Your task to perform on an android device: Do I have any events this weekend? Image 0: 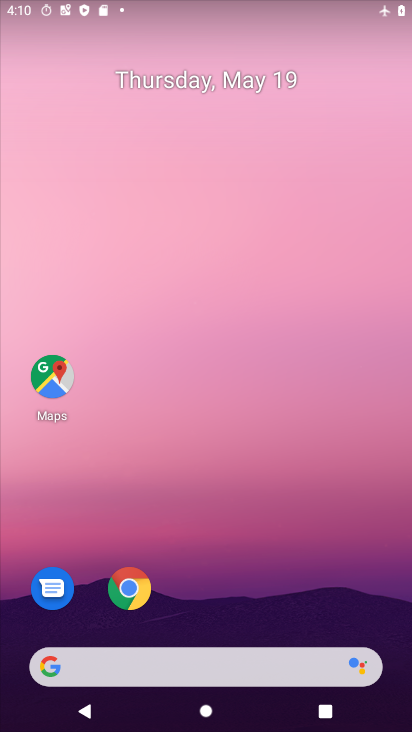
Step 0: drag from (196, 637) to (245, 189)
Your task to perform on an android device: Do I have any events this weekend? Image 1: 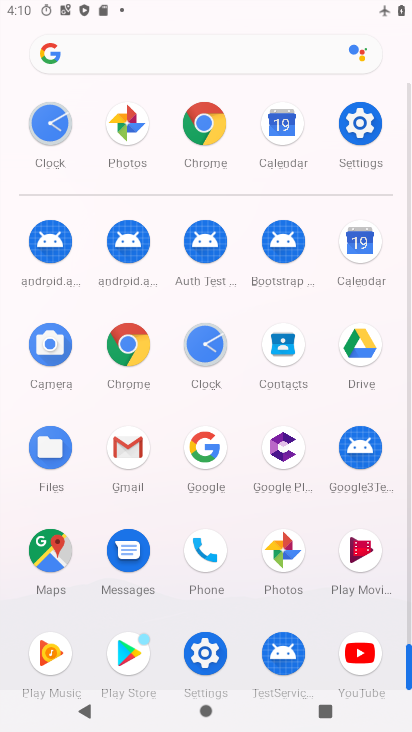
Step 1: click (353, 265)
Your task to perform on an android device: Do I have any events this weekend? Image 2: 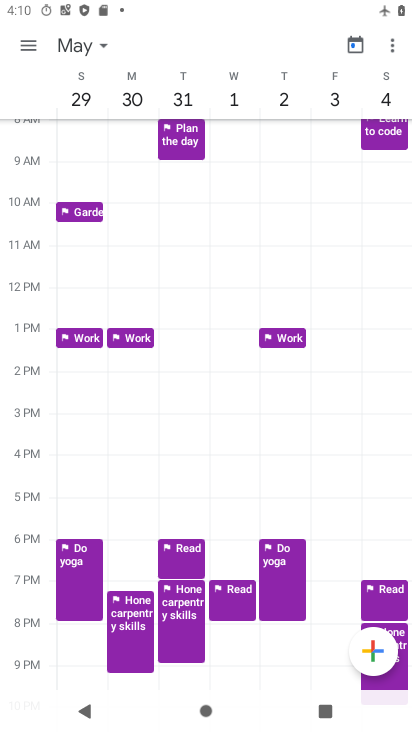
Step 2: drag from (115, 94) to (410, 150)
Your task to perform on an android device: Do I have any events this weekend? Image 3: 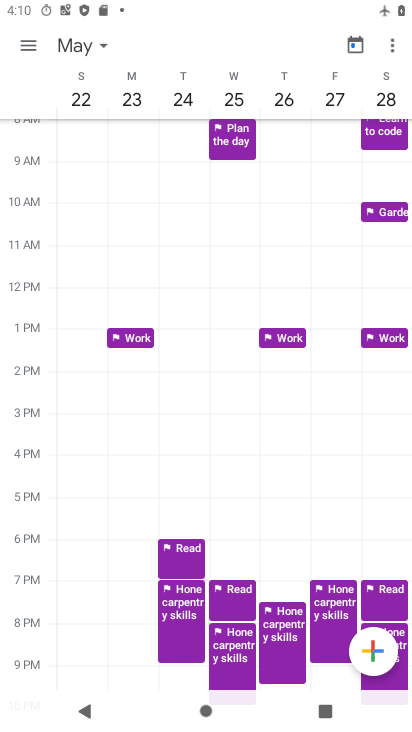
Step 3: drag from (109, 99) to (380, 97)
Your task to perform on an android device: Do I have any events this weekend? Image 4: 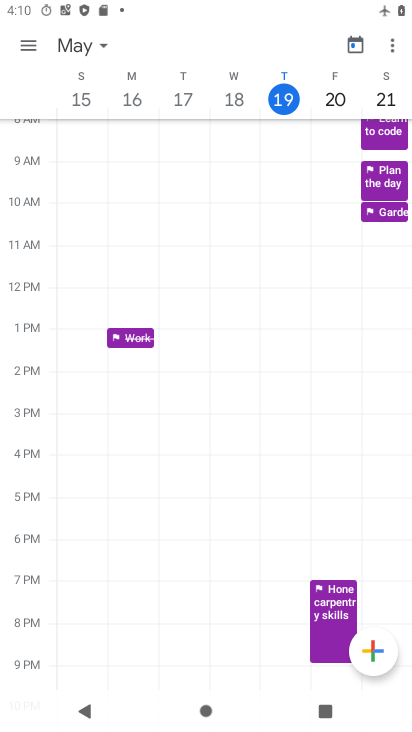
Step 4: click (25, 47)
Your task to perform on an android device: Do I have any events this weekend? Image 5: 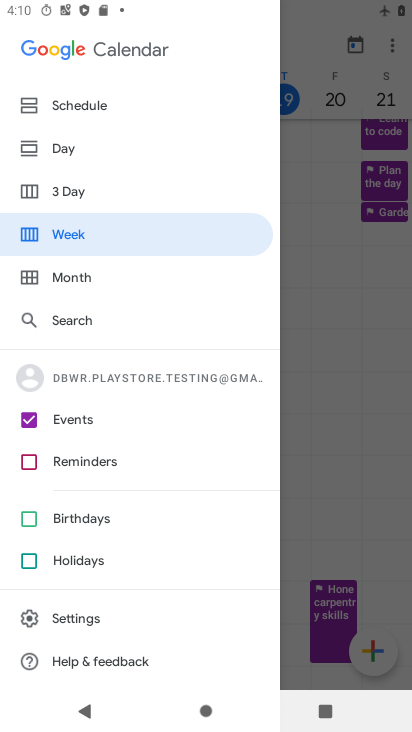
Step 5: click (348, 405)
Your task to perform on an android device: Do I have any events this weekend? Image 6: 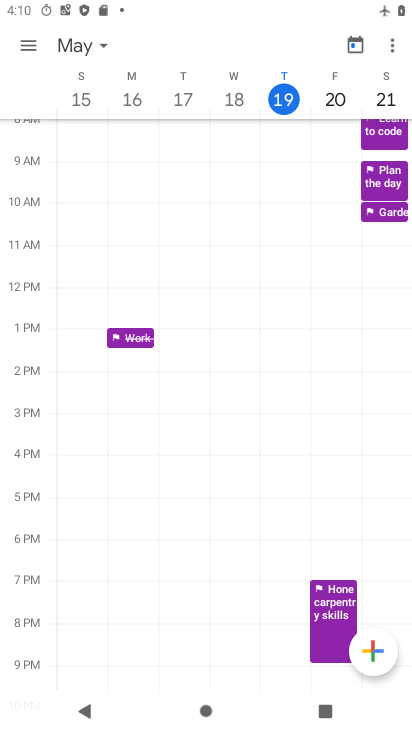
Step 6: task complete